Your task to perform on an android device: check battery use Image 0: 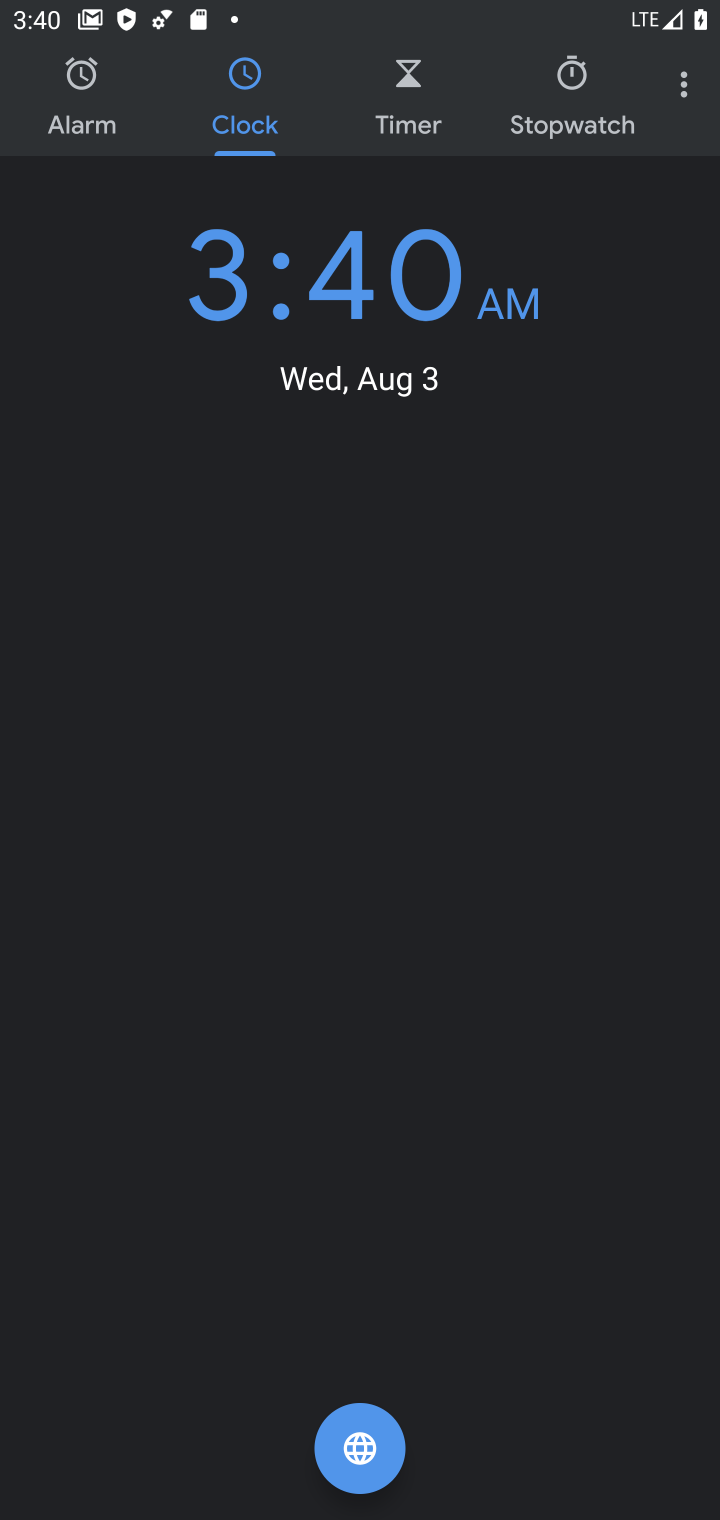
Step 0: press back button
Your task to perform on an android device: check battery use Image 1: 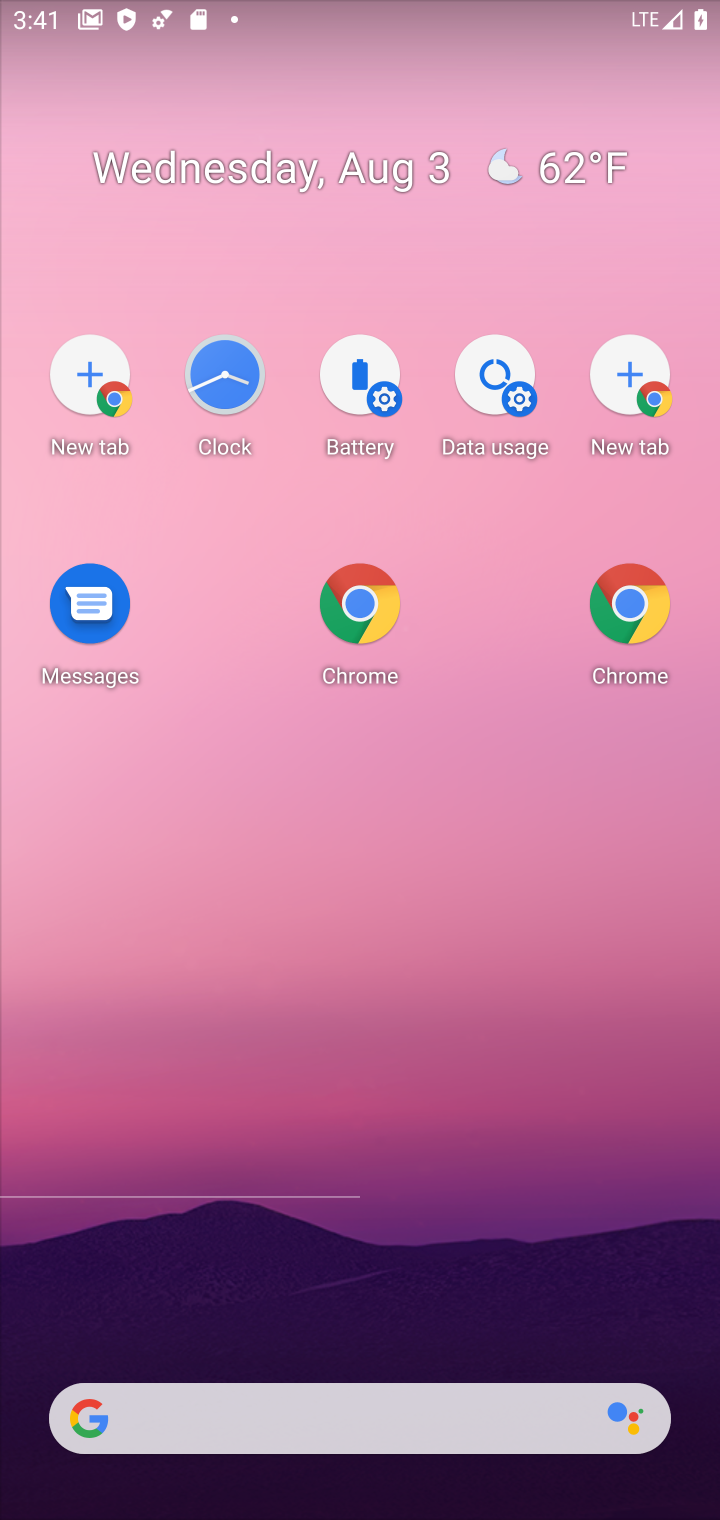
Step 1: click (393, 173)
Your task to perform on an android device: check battery use Image 2: 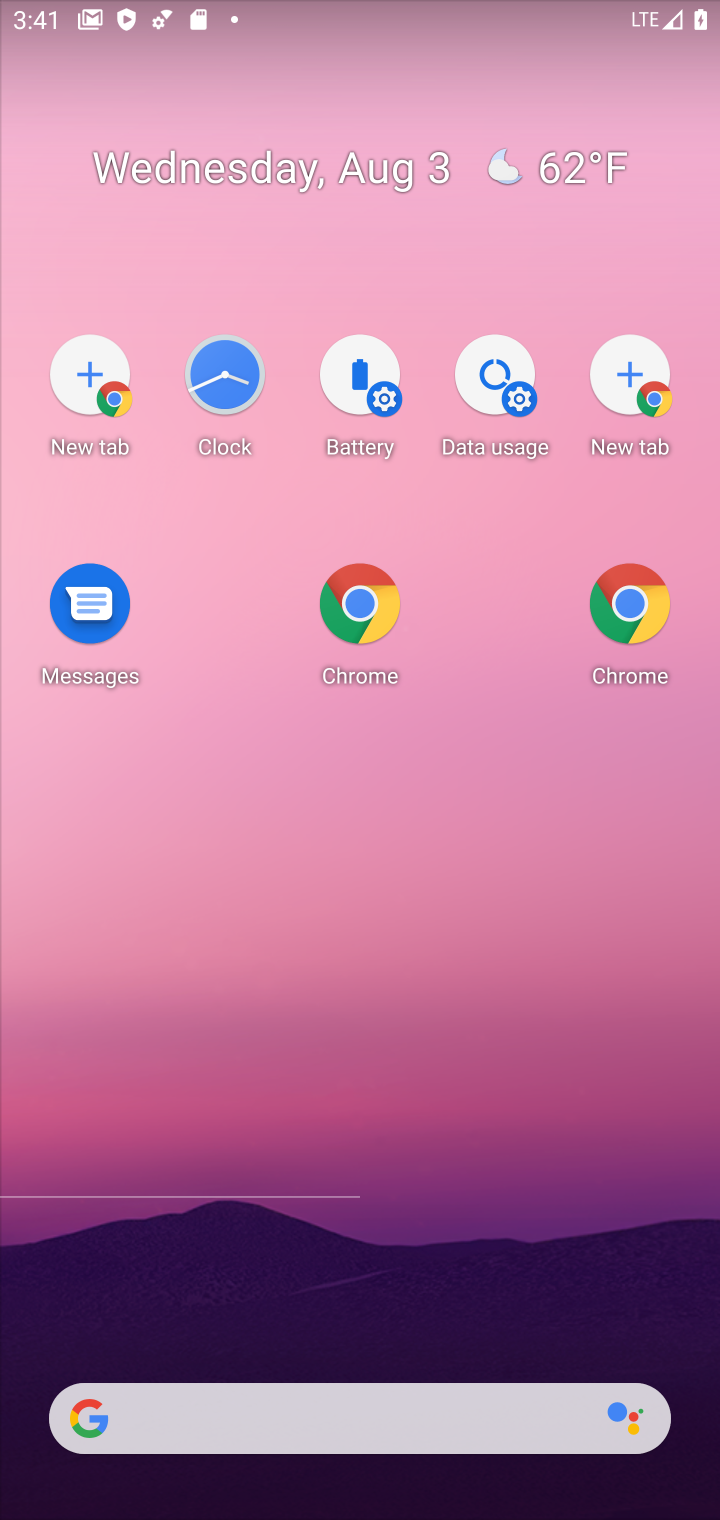
Step 2: click (426, 152)
Your task to perform on an android device: check battery use Image 3: 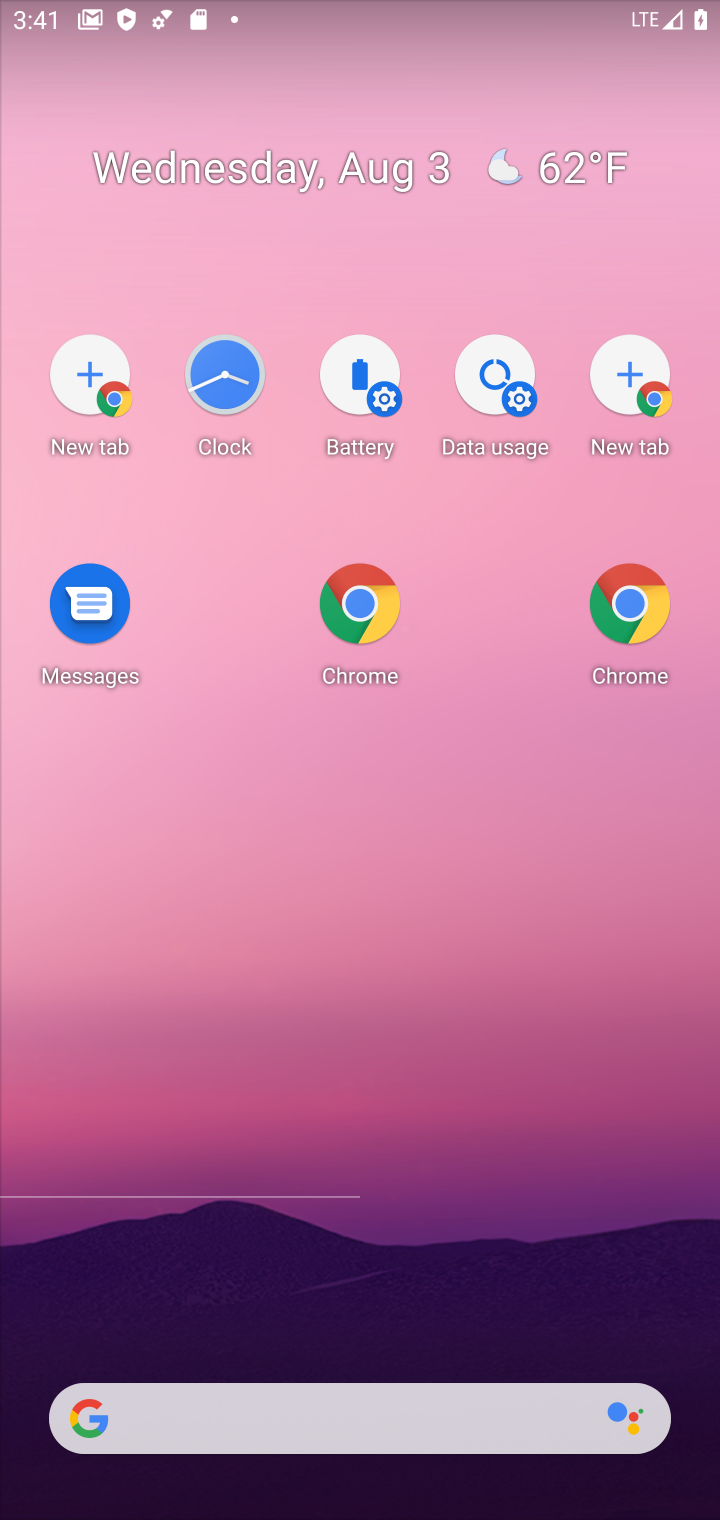
Step 3: click (468, 128)
Your task to perform on an android device: check battery use Image 4: 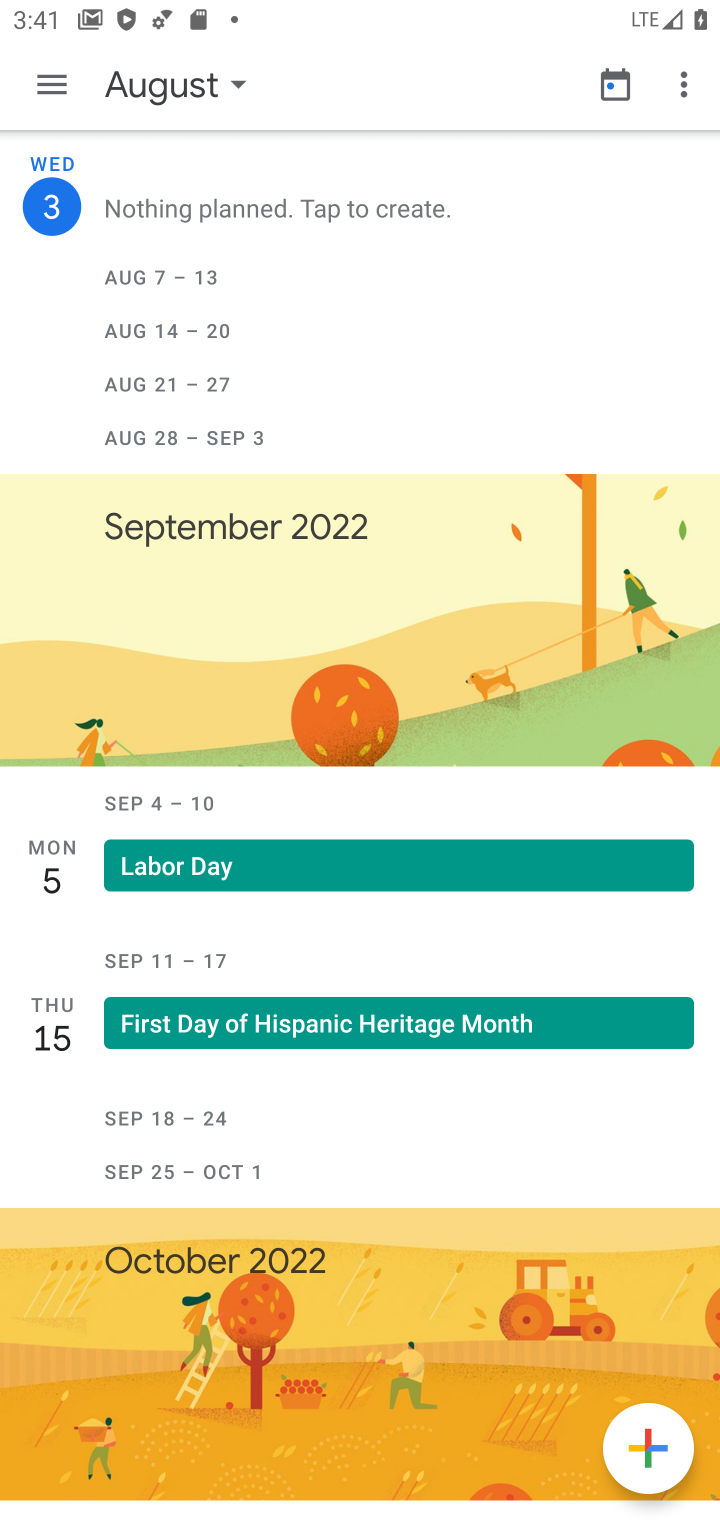
Step 4: click (418, 242)
Your task to perform on an android device: check battery use Image 5: 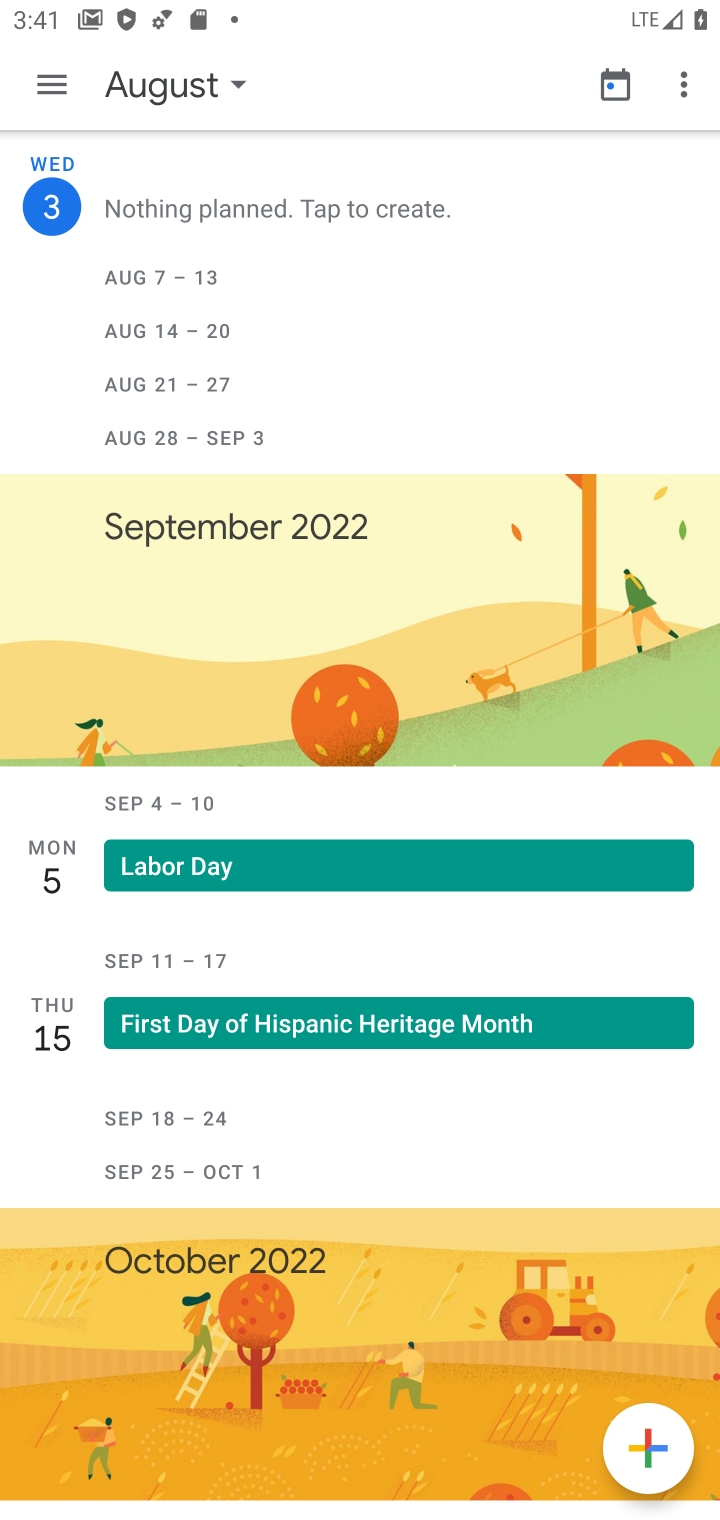
Step 5: click (423, 498)
Your task to perform on an android device: check battery use Image 6: 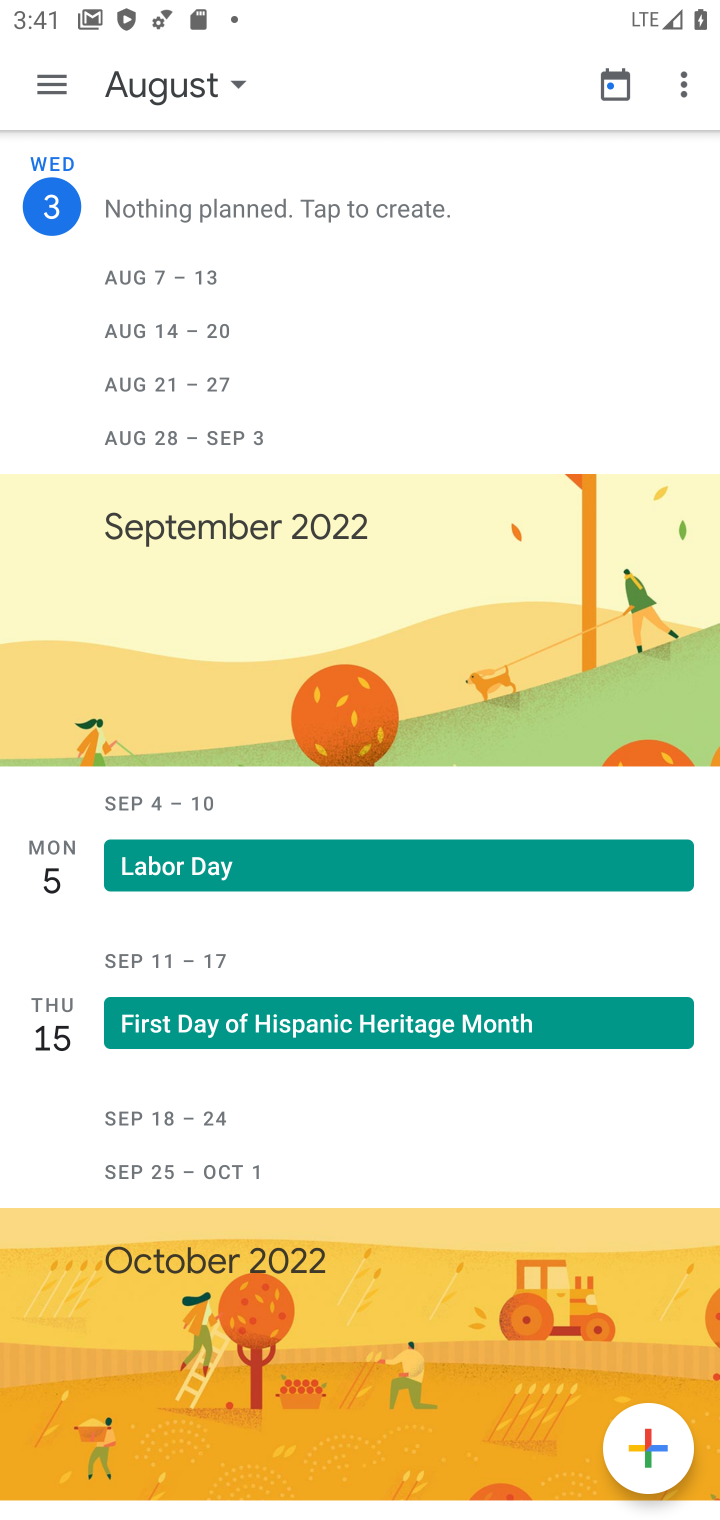
Step 6: drag from (526, 377) to (374, 404)
Your task to perform on an android device: check battery use Image 7: 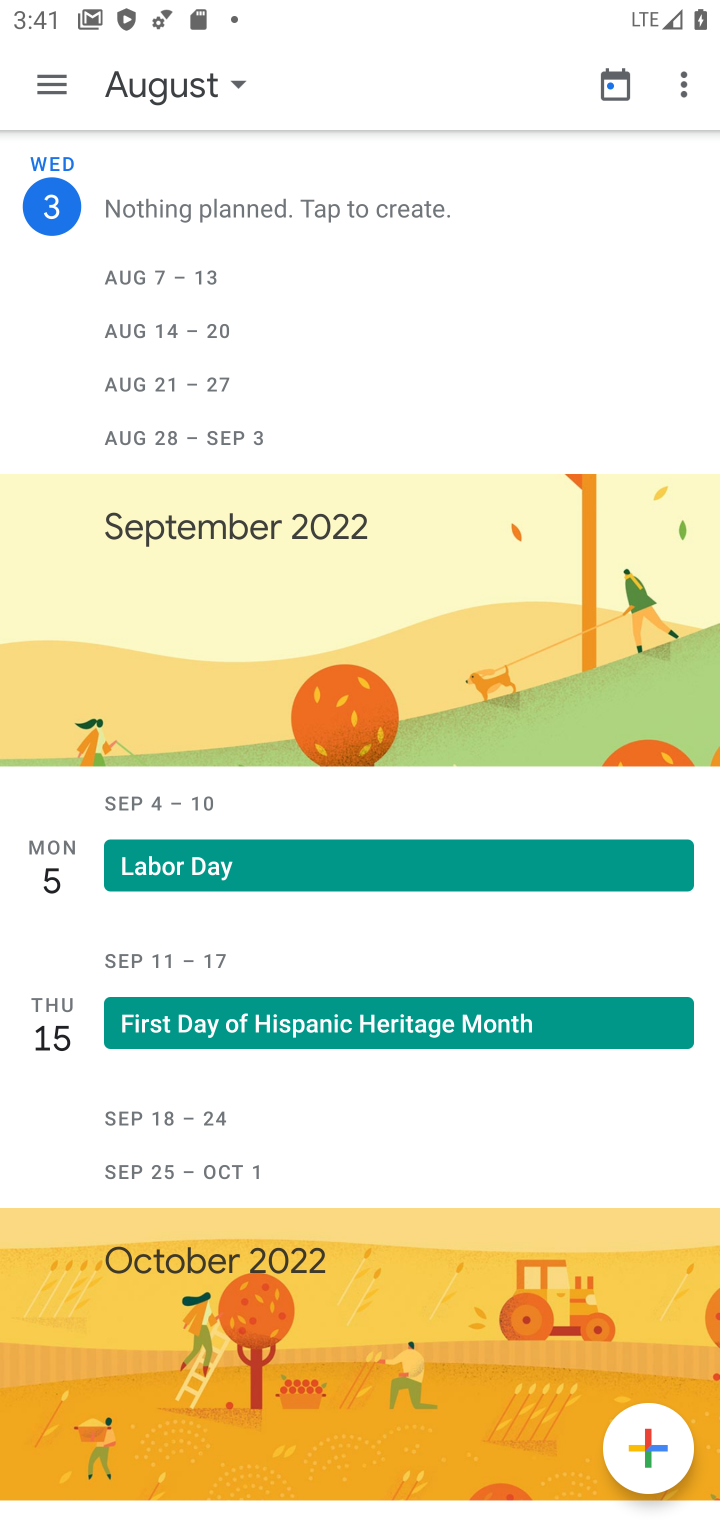
Step 7: press back button
Your task to perform on an android device: check battery use Image 8: 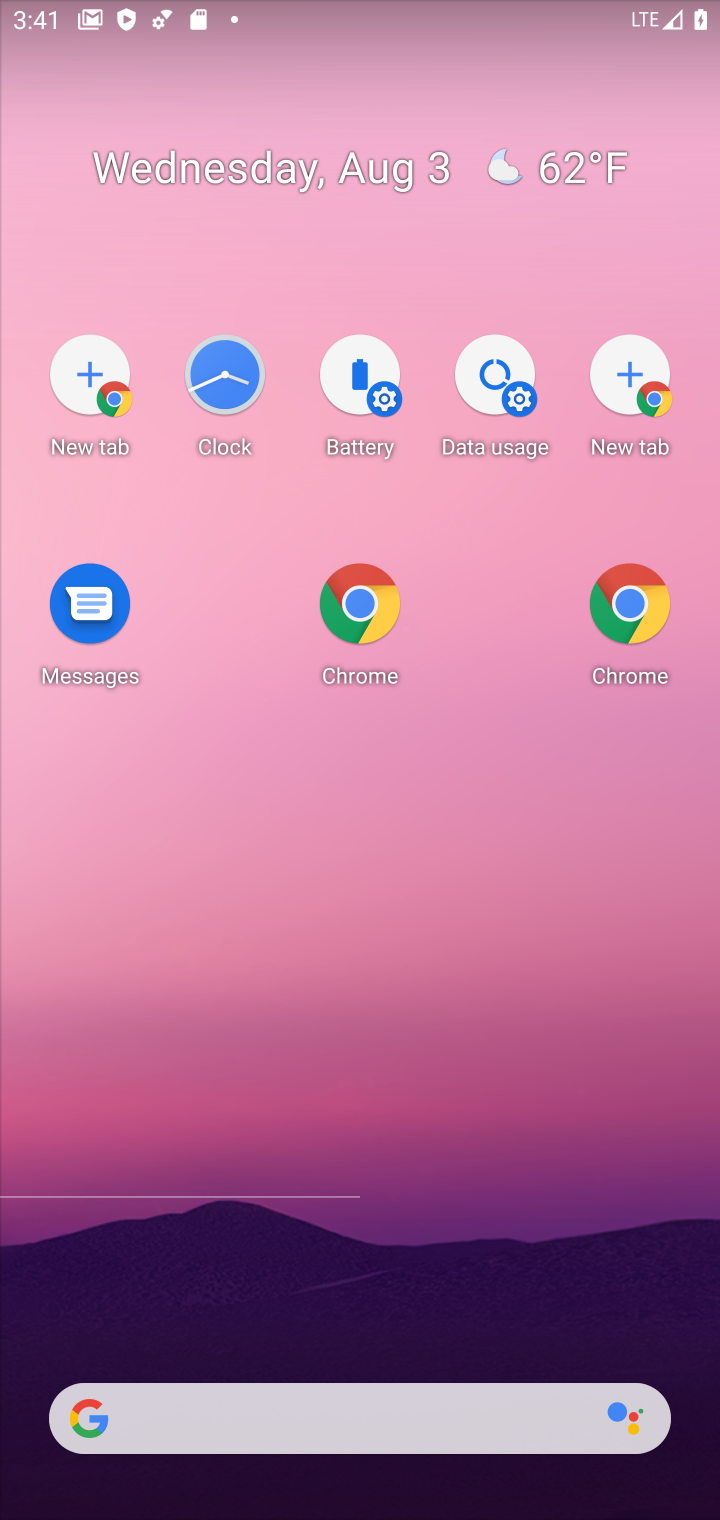
Step 8: press home button
Your task to perform on an android device: check battery use Image 9: 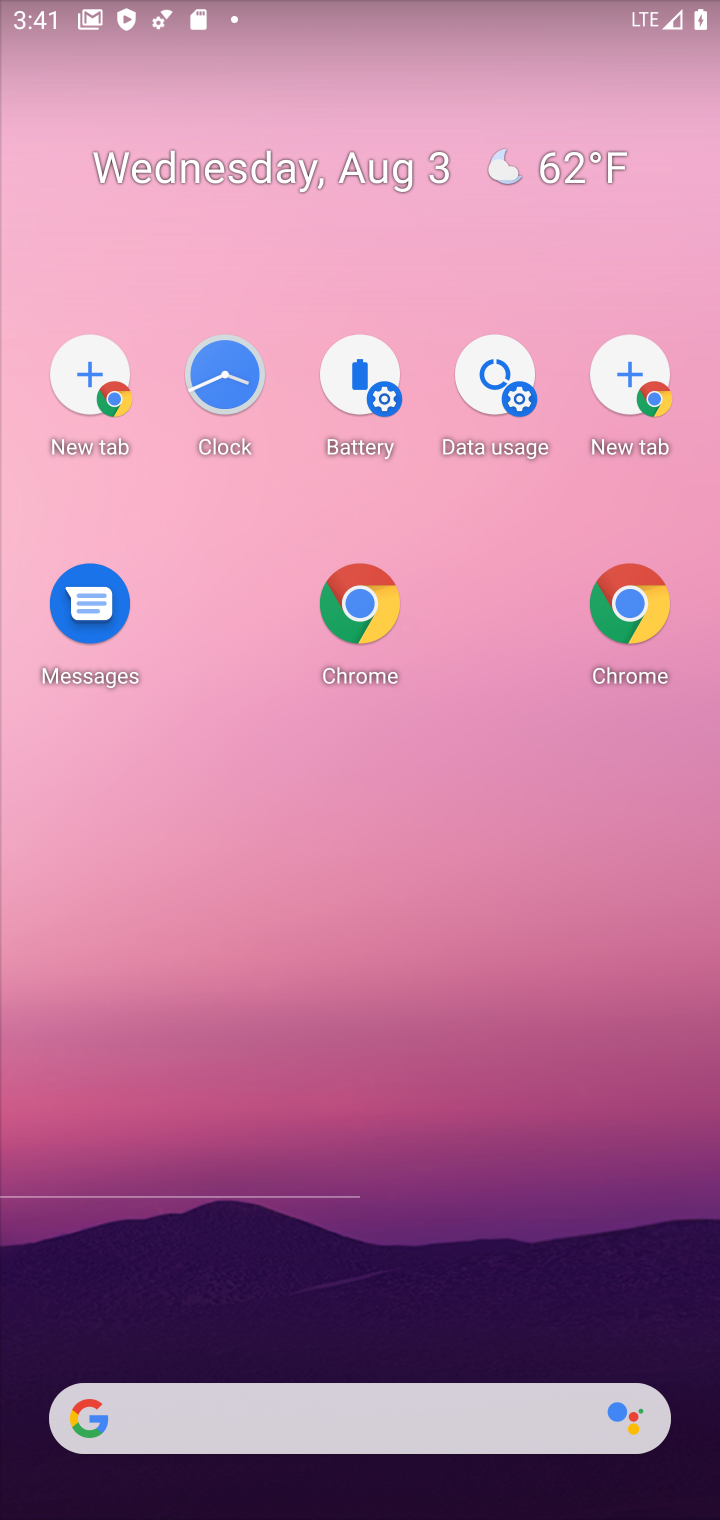
Step 9: click (362, 398)
Your task to perform on an android device: check battery use Image 10: 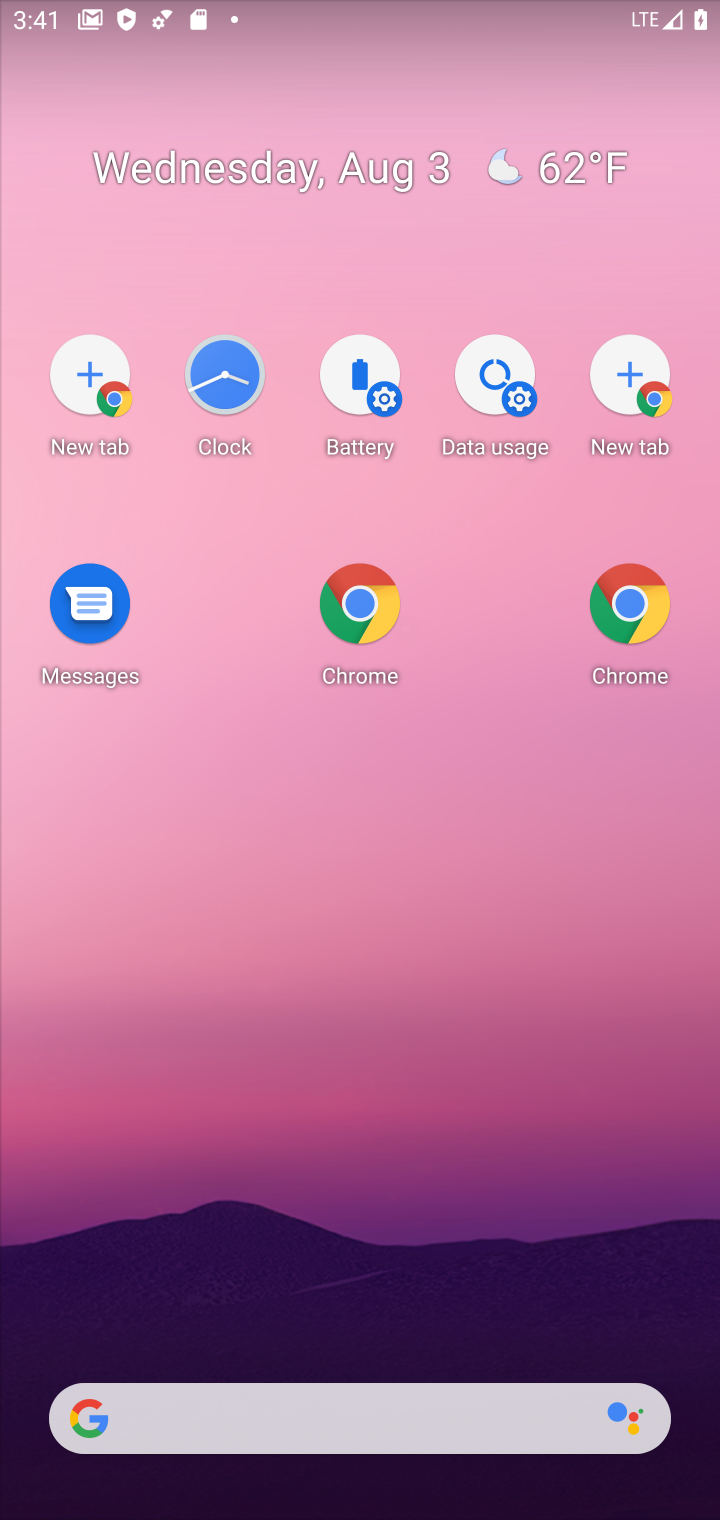
Step 10: click (355, 355)
Your task to perform on an android device: check battery use Image 11: 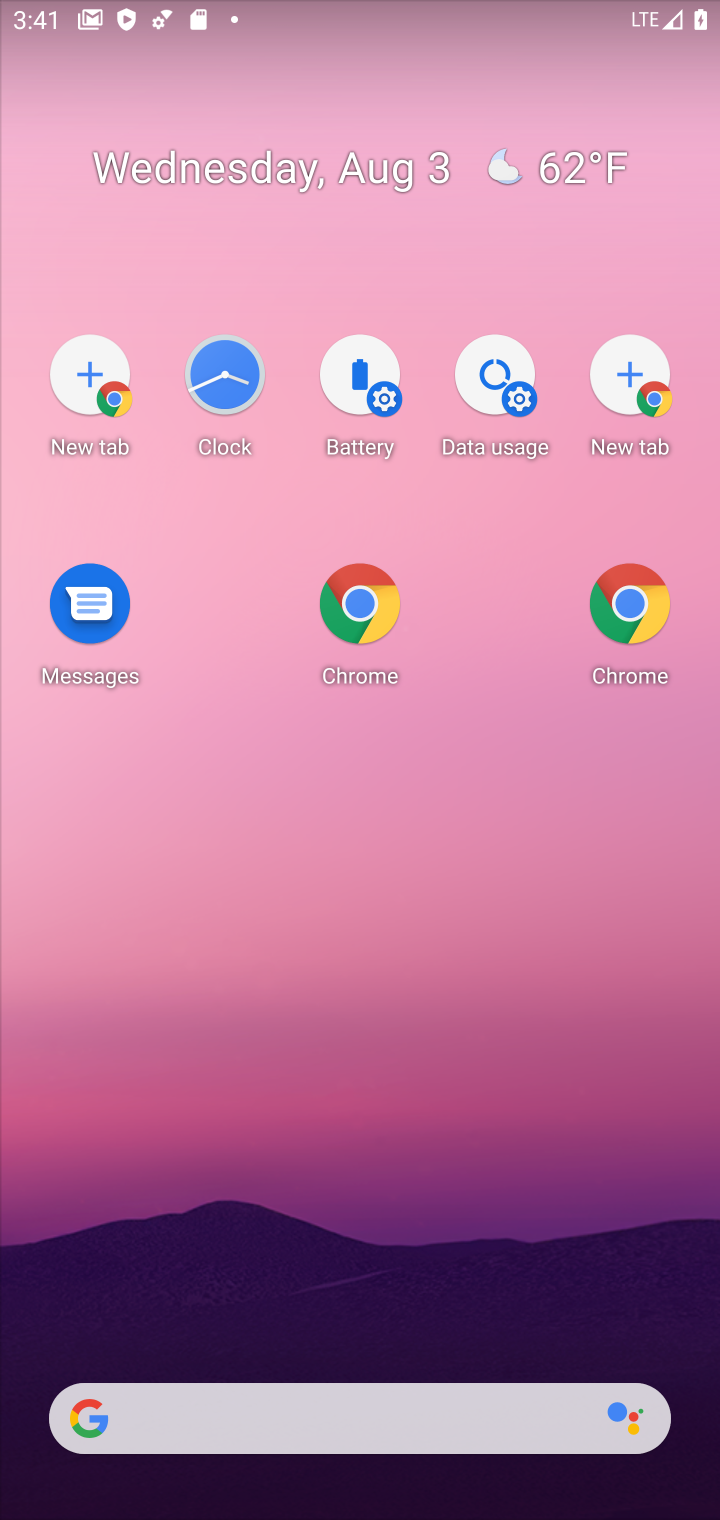
Step 11: task complete